Your task to perform on an android device: Search for Mexican restaurants on Maps Image 0: 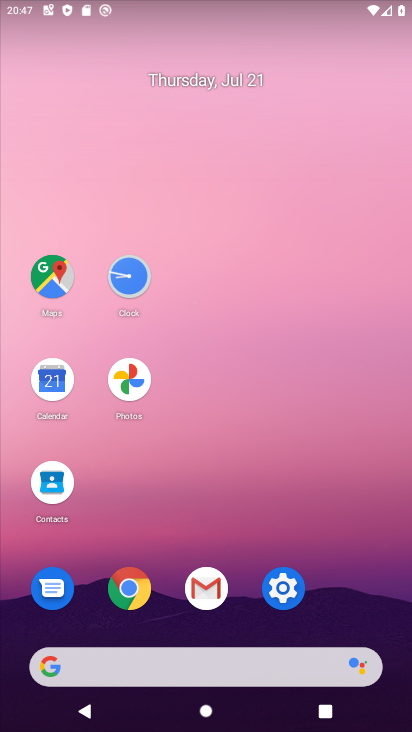
Step 0: click (50, 282)
Your task to perform on an android device: Search for Mexican restaurants on Maps Image 1: 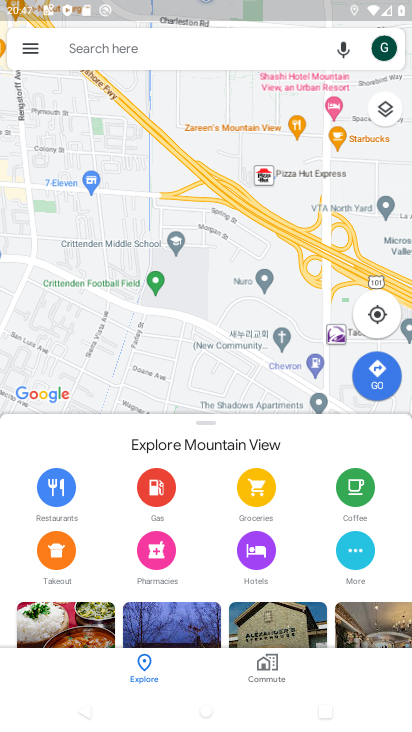
Step 1: click (101, 40)
Your task to perform on an android device: Search for Mexican restaurants on Maps Image 2: 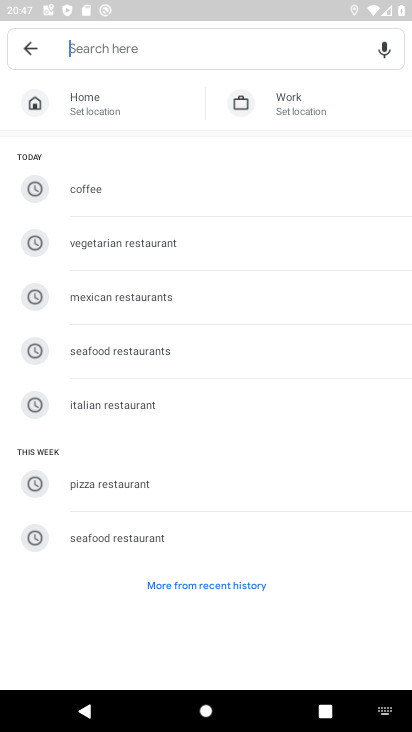
Step 2: click (113, 297)
Your task to perform on an android device: Search for Mexican restaurants on Maps Image 3: 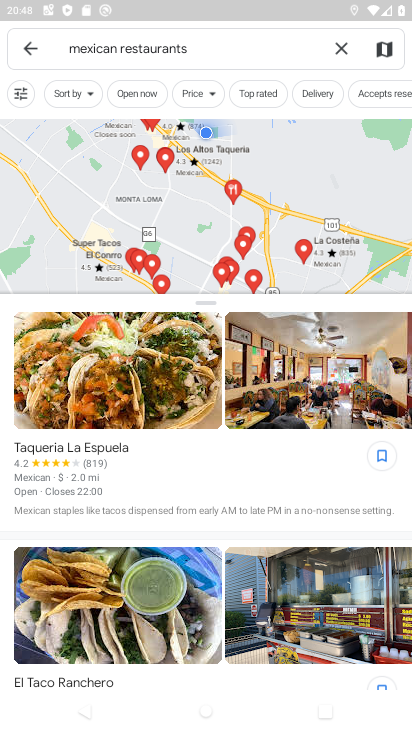
Step 3: task complete